Your task to perform on an android device: Go to calendar. Show me events next week Image 0: 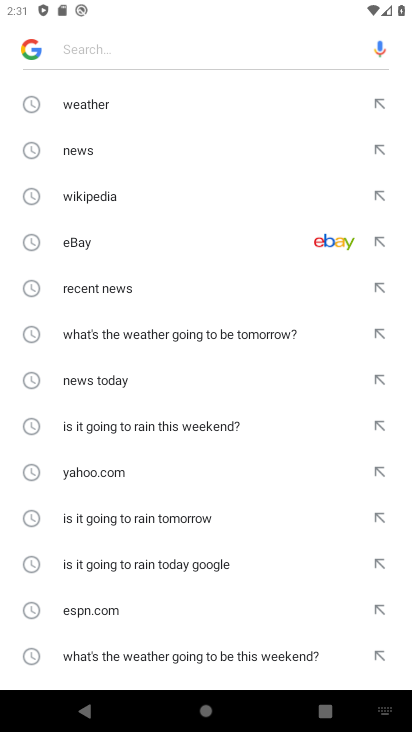
Step 0: press home button
Your task to perform on an android device: Go to calendar. Show me events next week Image 1: 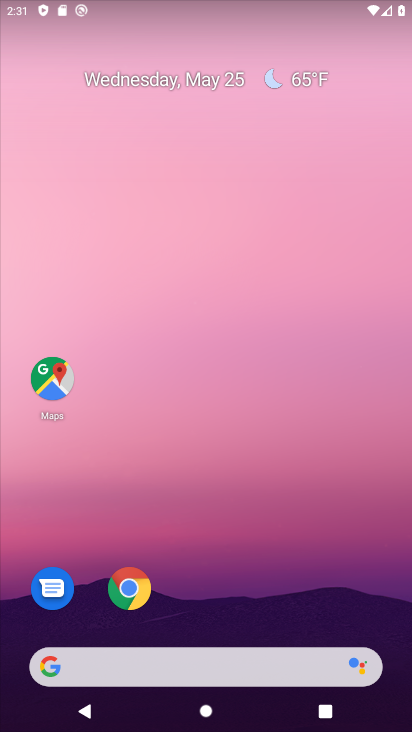
Step 1: drag from (159, 606) to (193, 228)
Your task to perform on an android device: Go to calendar. Show me events next week Image 2: 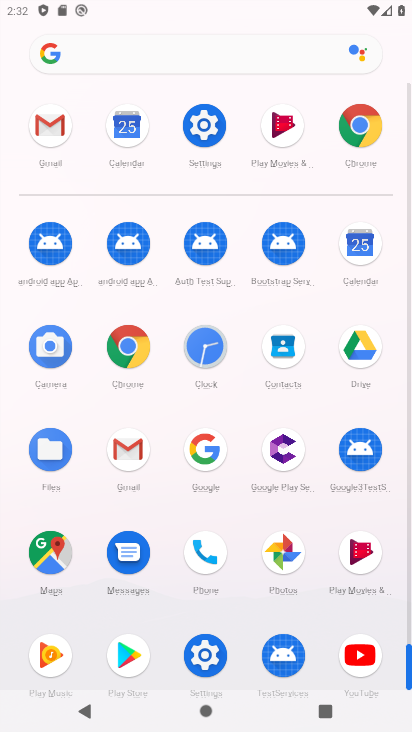
Step 2: click (361, 243)
Your task to perform on an android device: Go to calendar. Show me events next week Image 3: 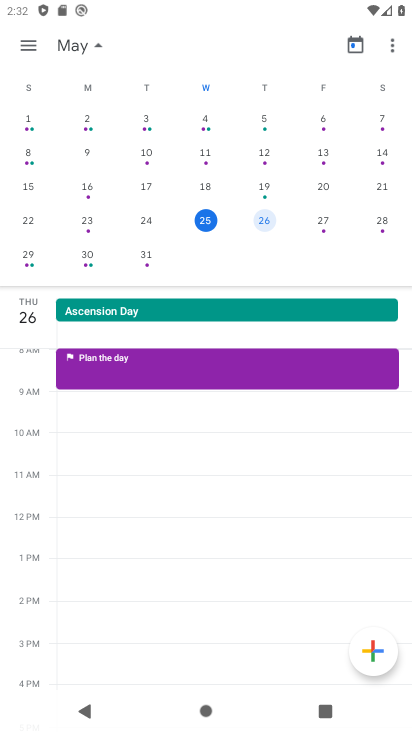
Step 3: click (385, 221)
Your task to perform on an android device: Go to calendar. Show me events next week Image 4: 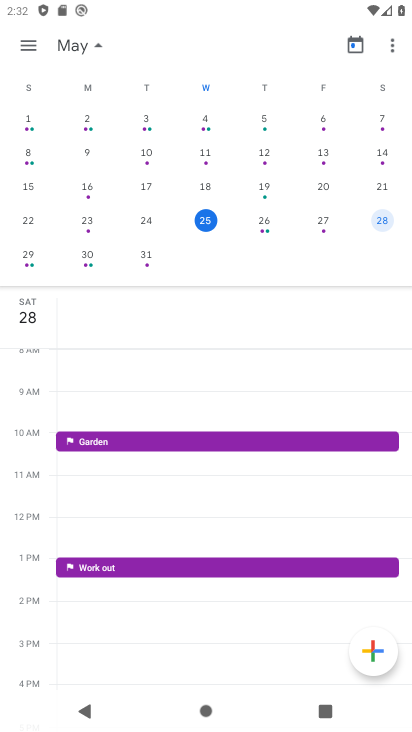
Step 4: click (28, 251)
Your task to perform on an android device: Go to calendar. Show me events next week Image 5: 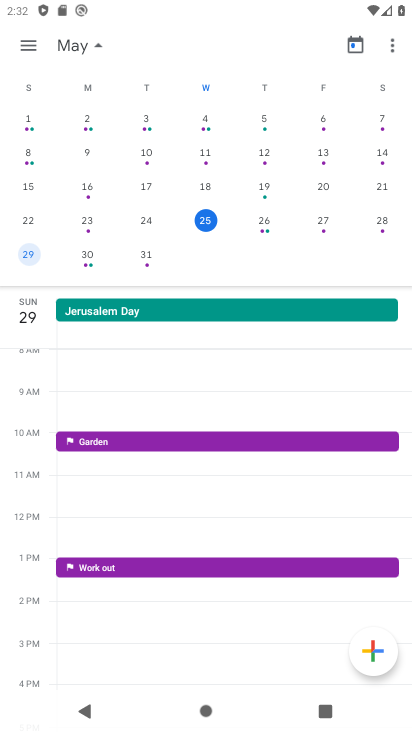
Step 5: task complete